Your task to perform on an android device: Search for the best rated mattress topper on Target. Image 0: 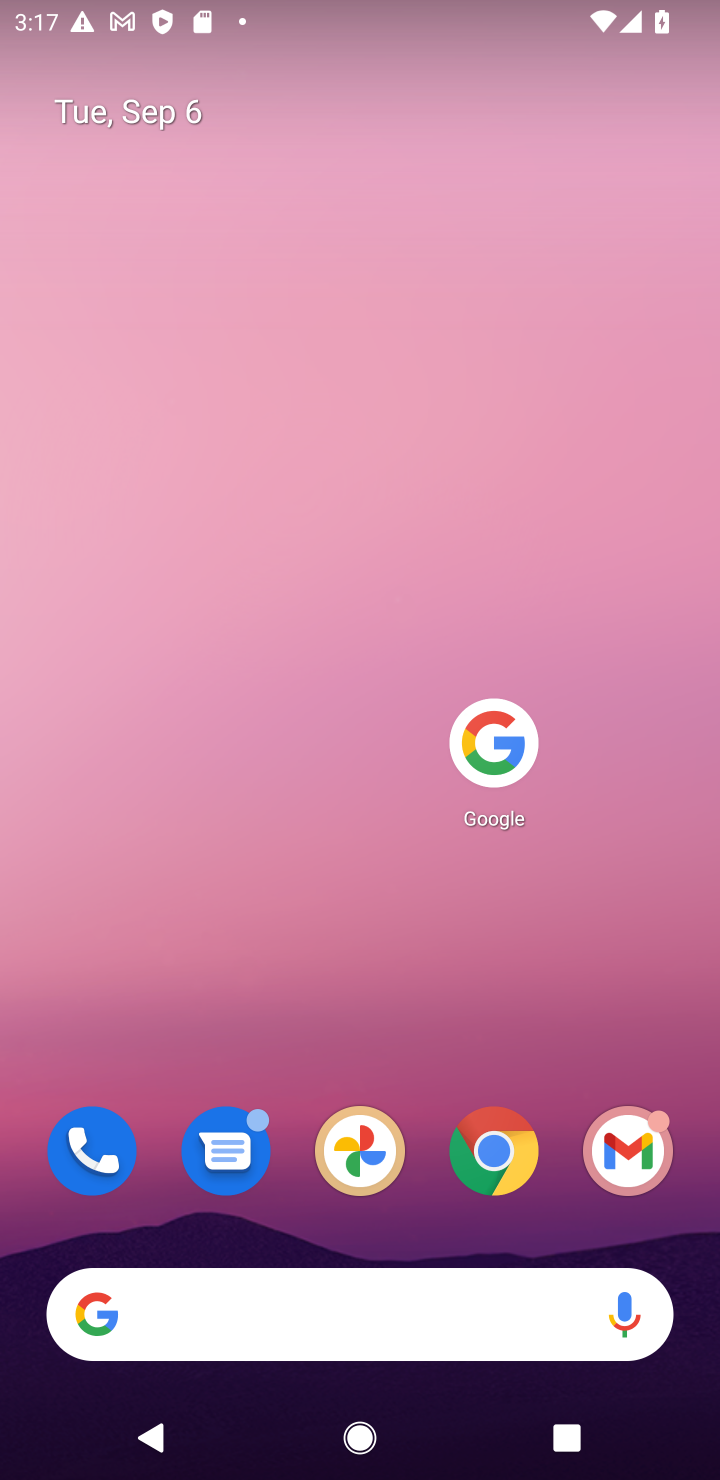
Step 0: click (494, 736)
Your task to perform on an android device: Search for the best rated mattress topper on Target. Image 1: 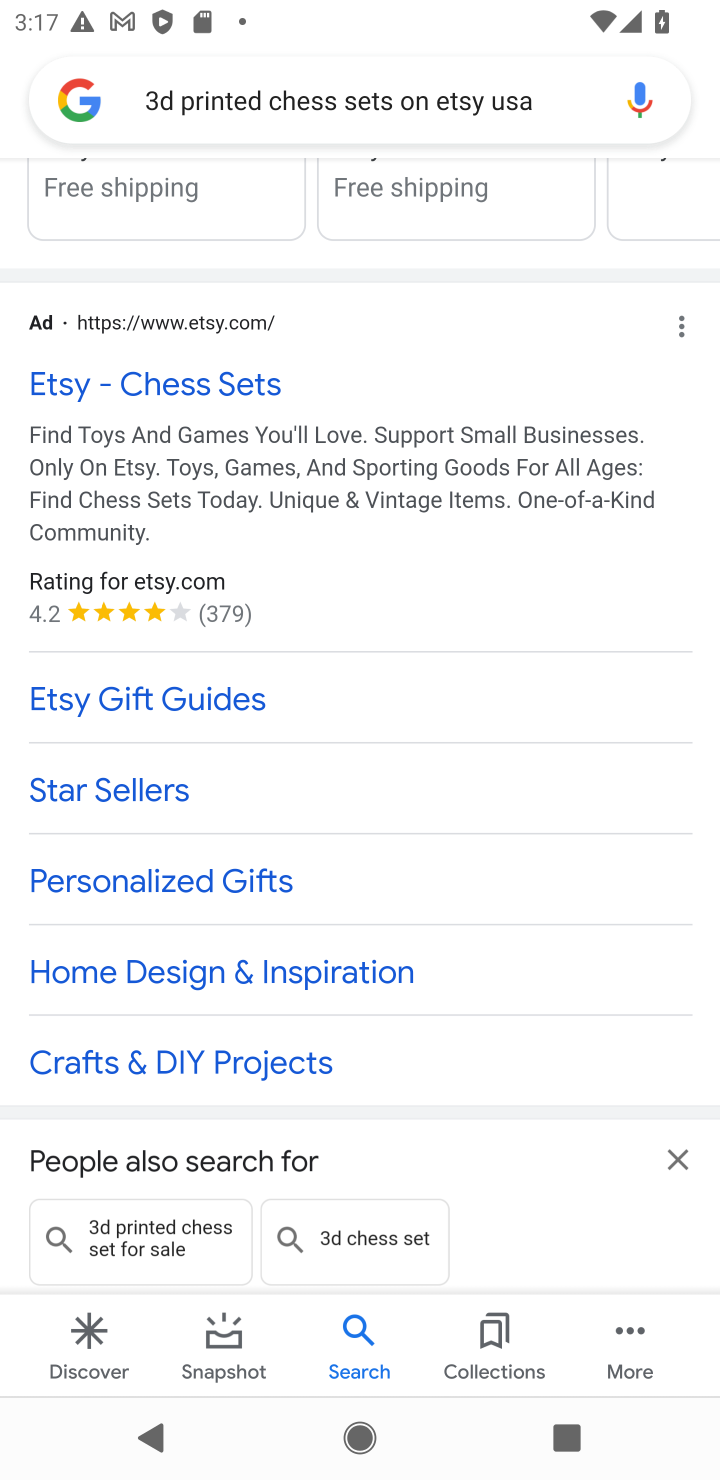
Step 1: click (420, 101)
Your task to perform on an android device: Search for the best rated mattress topper on Target. Image 2: 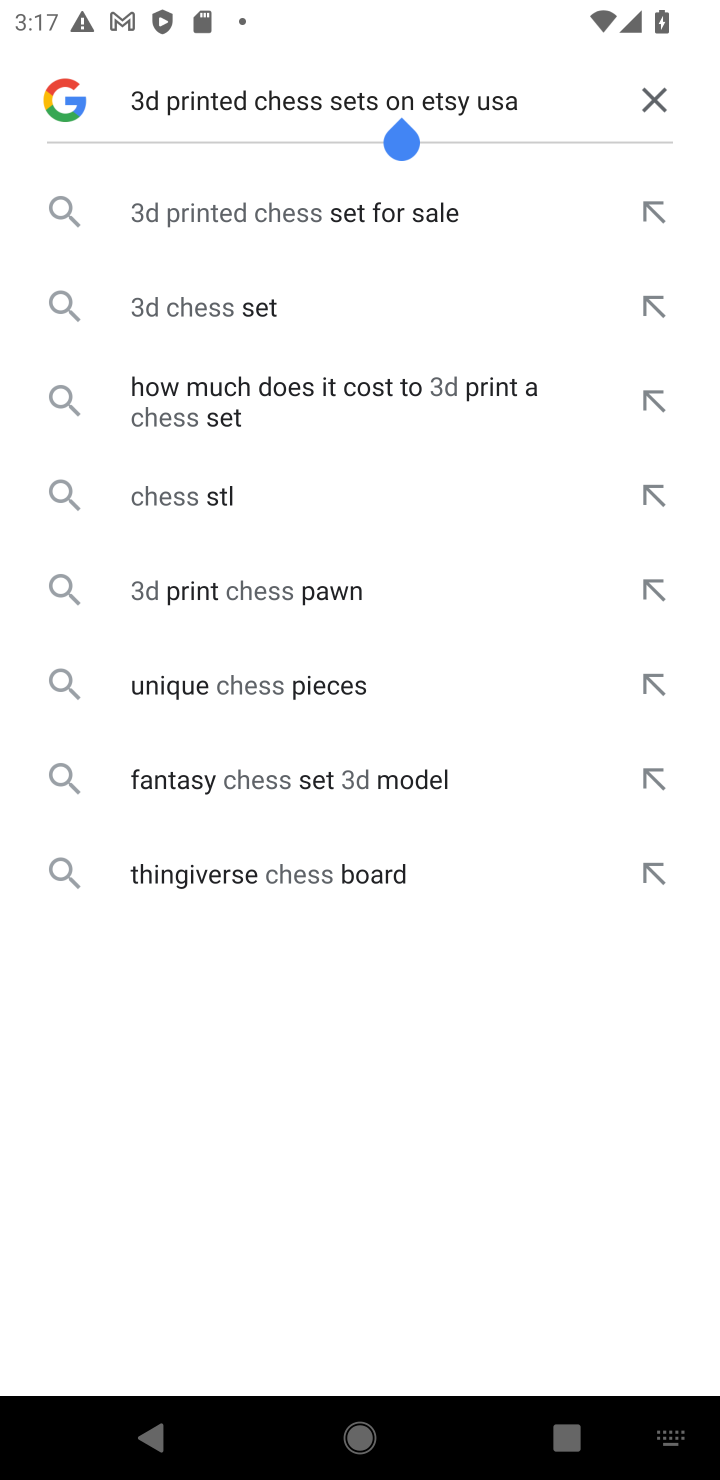
Step 2: click (659, 103)
Your task to perform on an android device: Search for the best rated mattress topper on Target. Image 3: 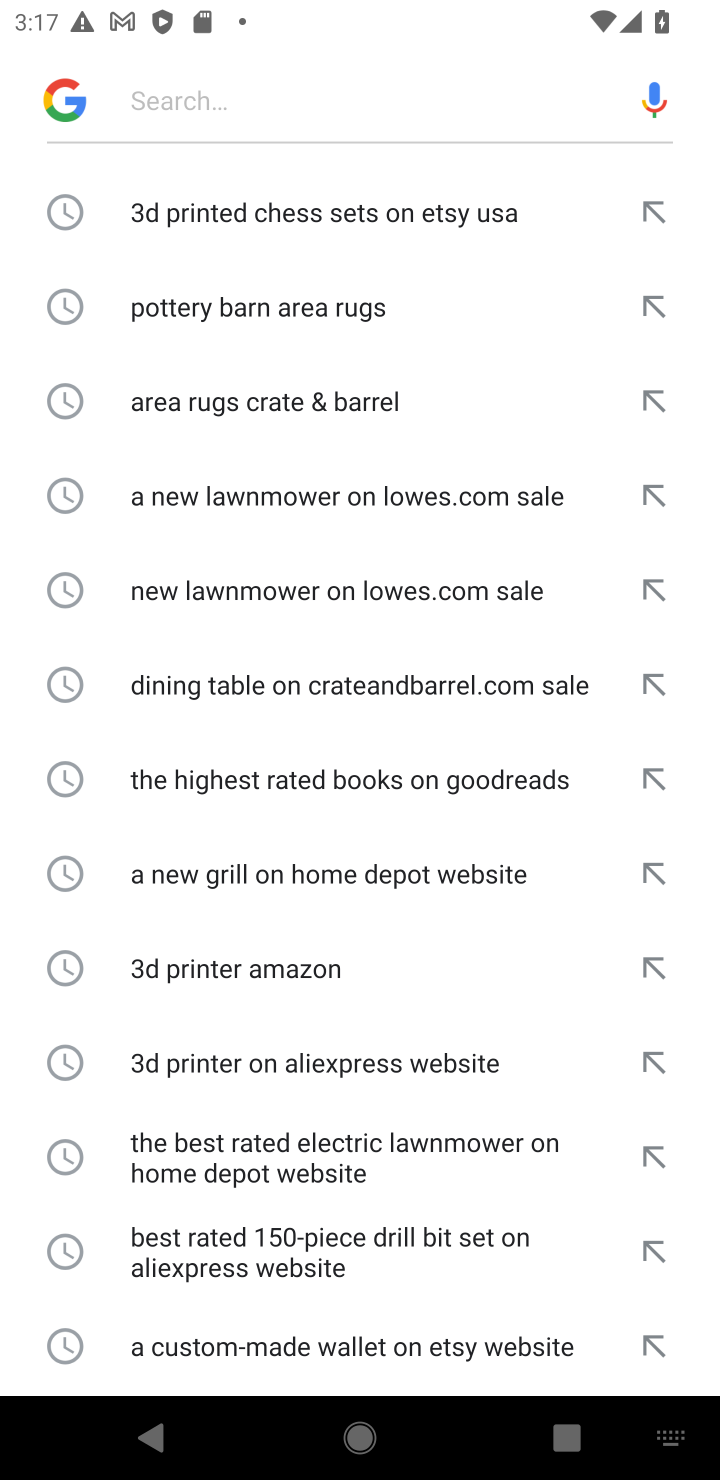
Step 3: click (294, 96)
Your task to perform on an android device: Search for the best rated mattress topper on Target. Image 4: 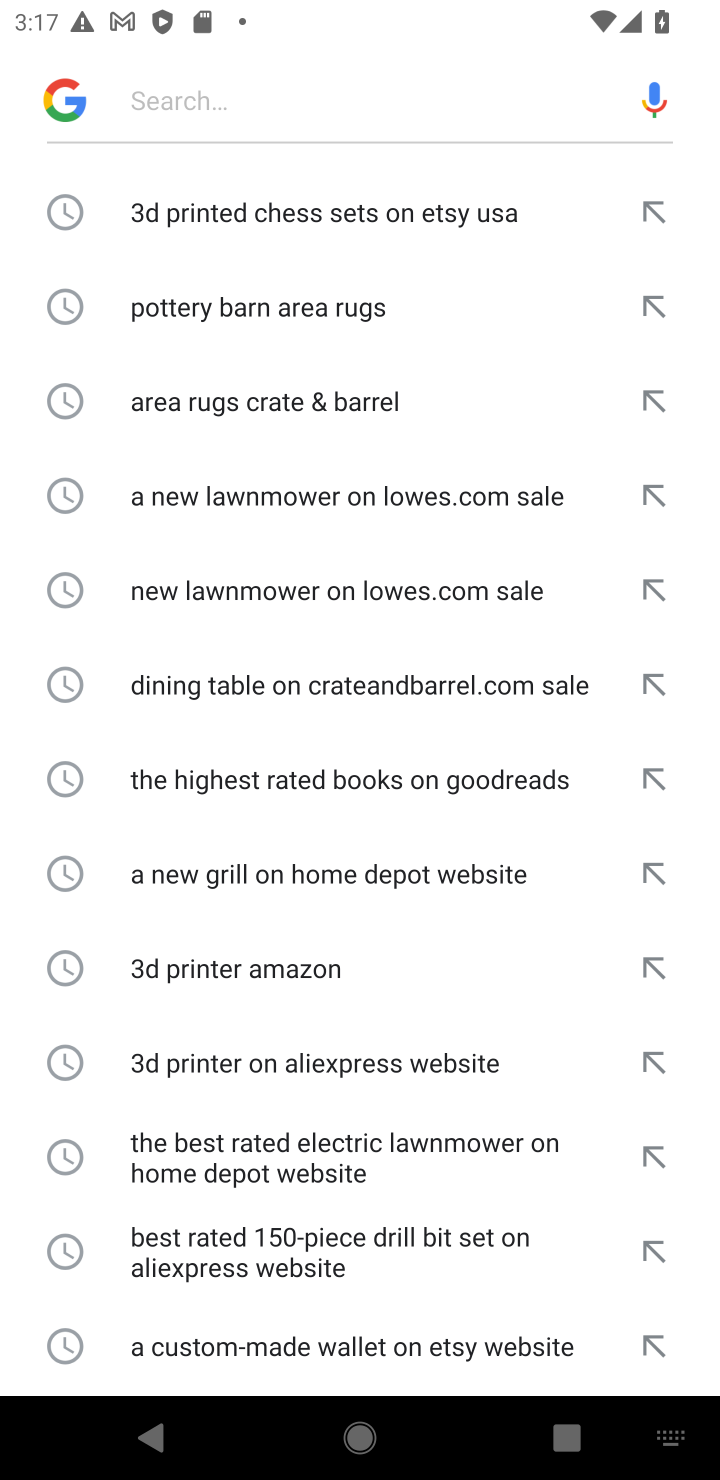
Step 4: type " the best rated mattress topper on Target "
Your task to perform on an android device: Search for the best rated mattress topper on Target. Image 5: 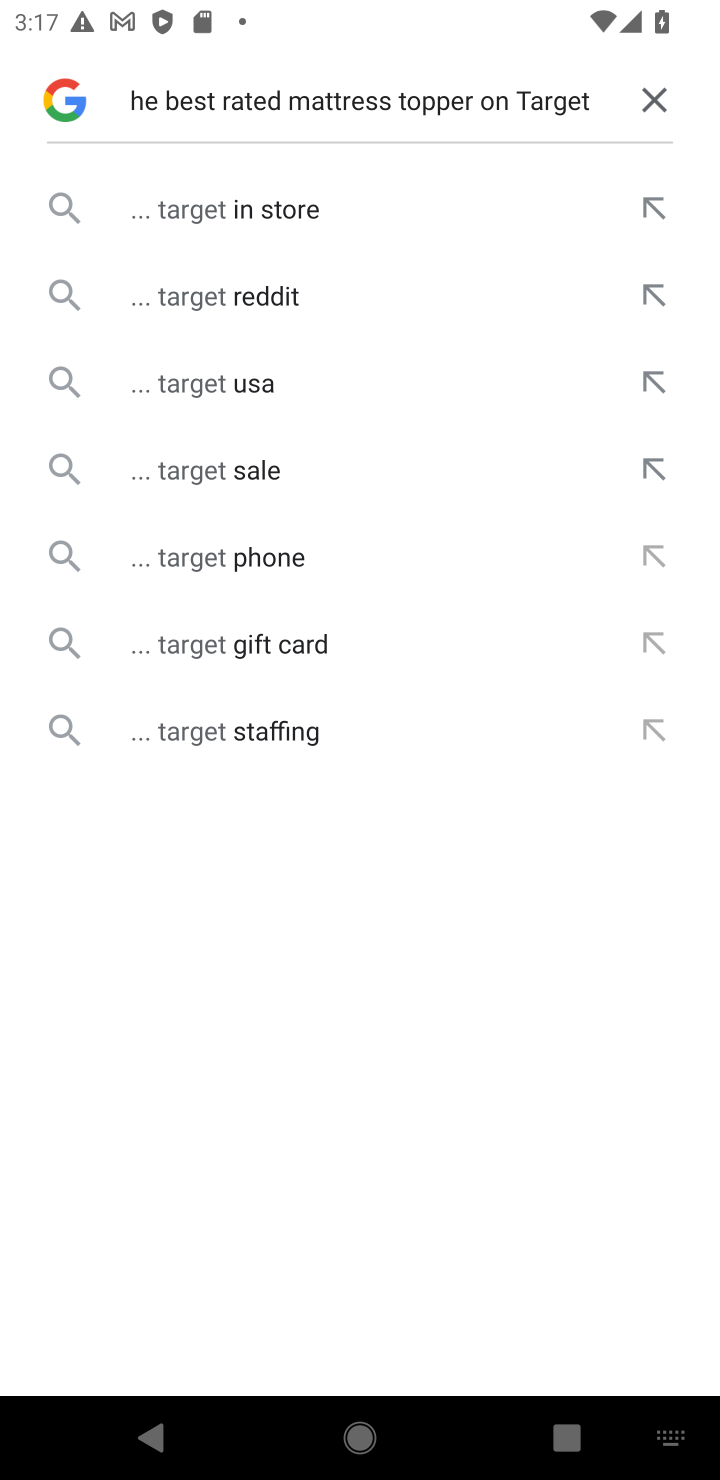
Step 5: click (248, 213)
Your task to perform on an android device: Search for the best rated mattress topper on Target. Image 6: 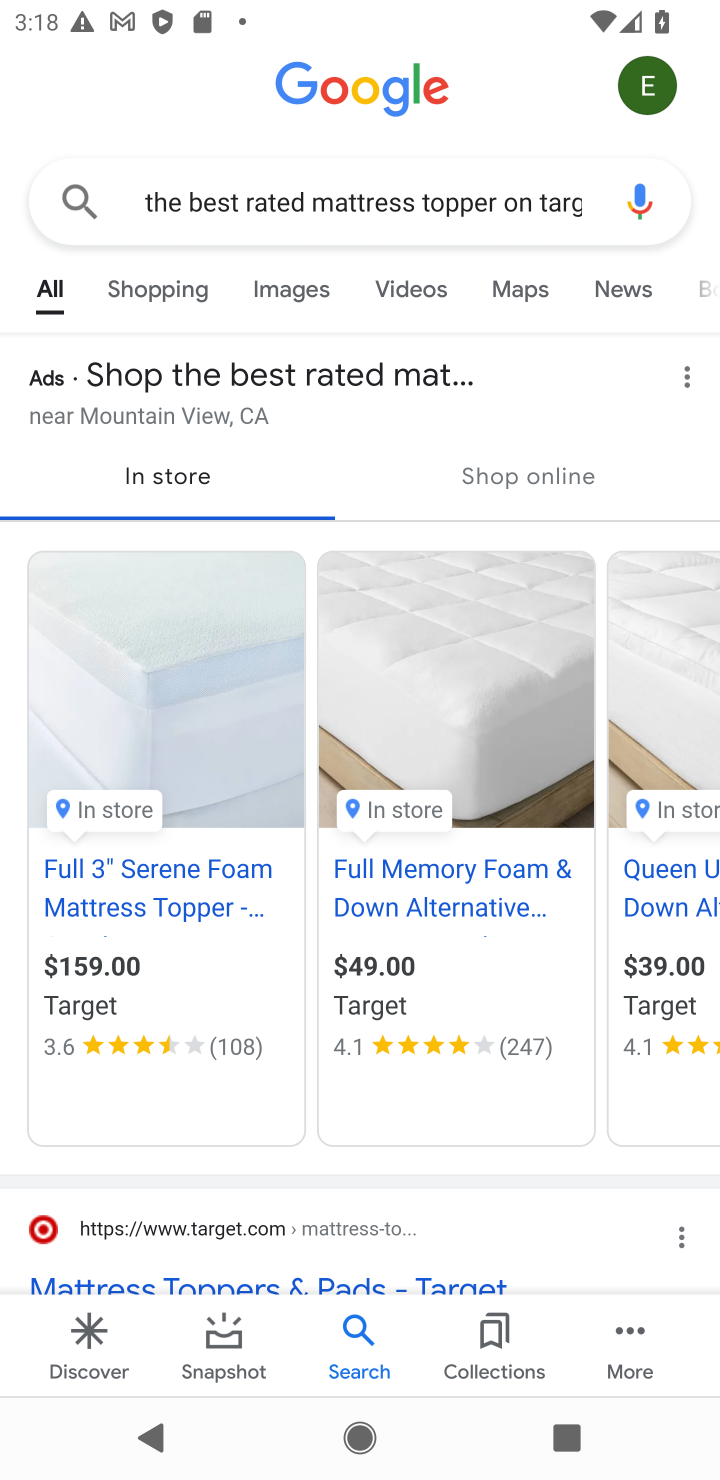
Step 6: task complete